Your task to perform on an android device: What's the weather going to be tomorrow? Image 0: 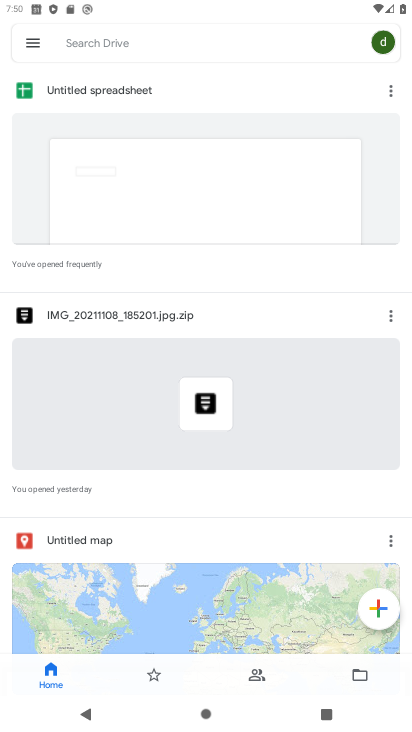
Step 0: press home button
Your task to perform on an android device: What's the weather going to be tomorrow? Image 1: 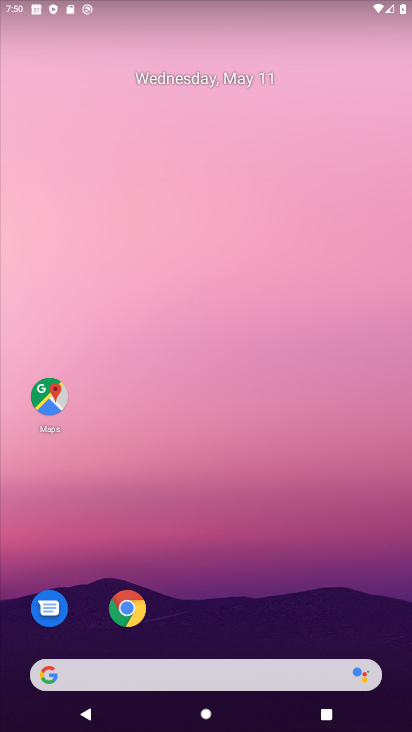
Step 1: drag from (248, 571) to (211, 11)
Your task to perform on an android device: What's the weather going to be tomorrow? Image 2: 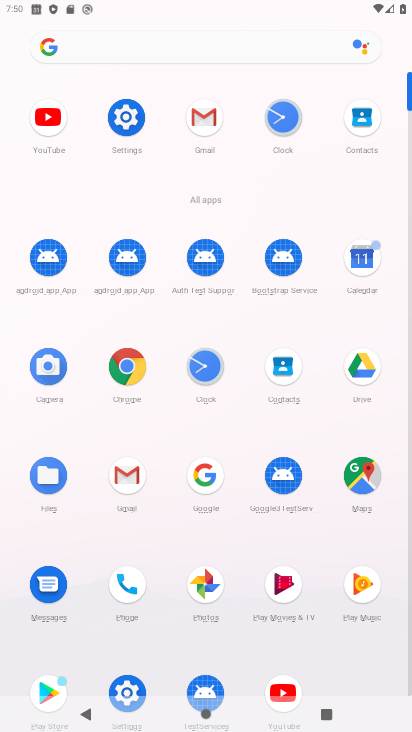
Step 2: click (200, 480)
Your task to perform on an android device: What's the weather going to be tomorrow? Image 3: 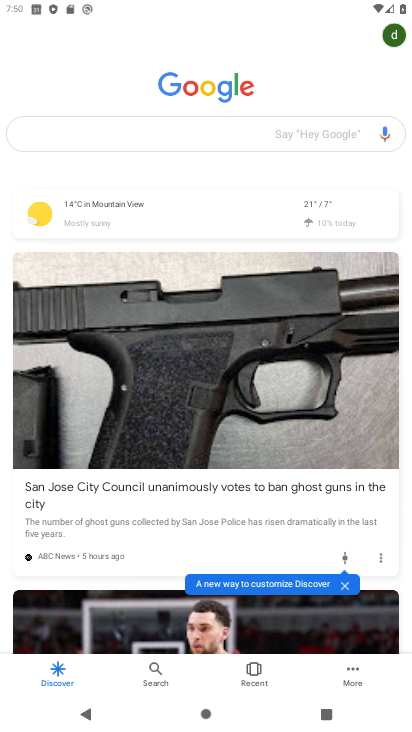
Step 3: click (323, 213)
Your task to perform on an android device: What's the weather going to be tomorrow? Image 4: 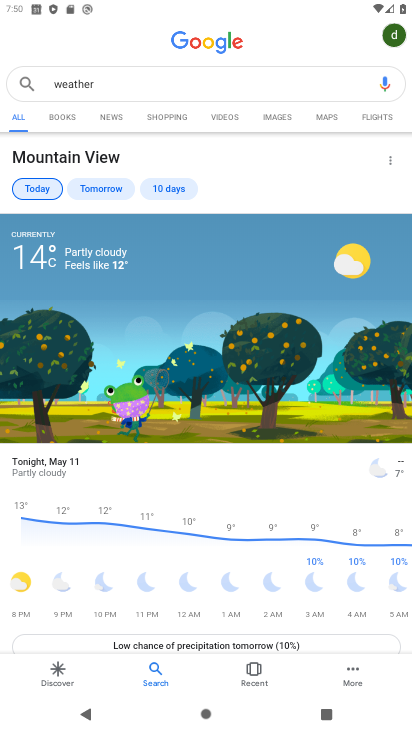
Step 4: click (105, 182)
Your task to perform on an android device: What's the weather going to be tomorrow? Image 5: 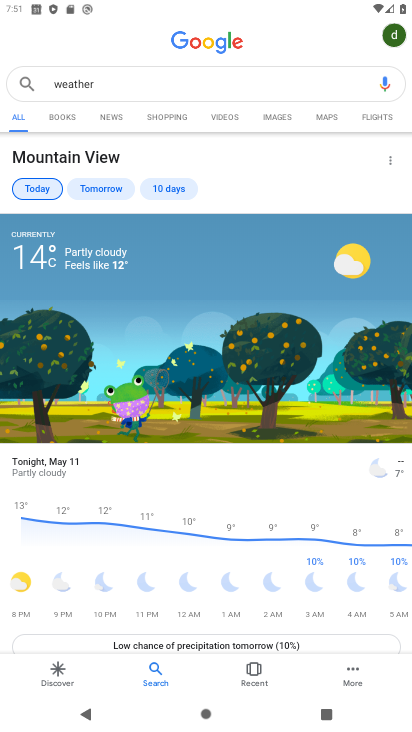
Step 5: click (89, 186)
Your task to perform on an android device: What's the weather going to be tomorrow? Image 6: 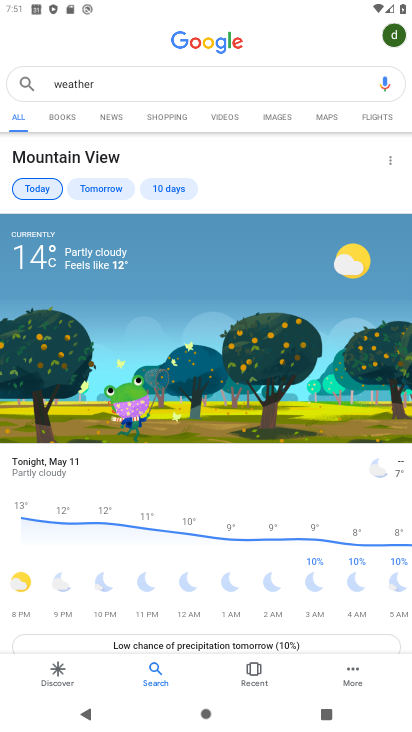
Step 6: drag from (343, 462) to (9, 500)
Your task to perform on an android device: What's the weather going to be tomorrow? Image 7: 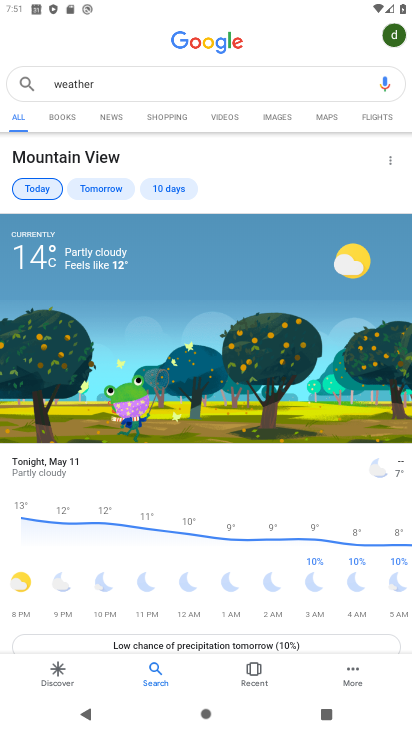
Step 7: drag from (314, 368) to (36, 353)
Your task to perform on an android device: What's the weather going to be tomorrow? Image 8: 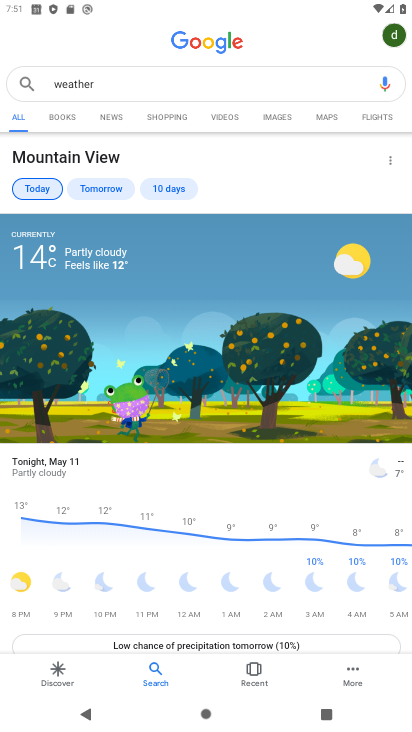
Step 8: click (106, 74)
Your task to perform on an android device: What's the weather going to be tomorrow? Image 9: 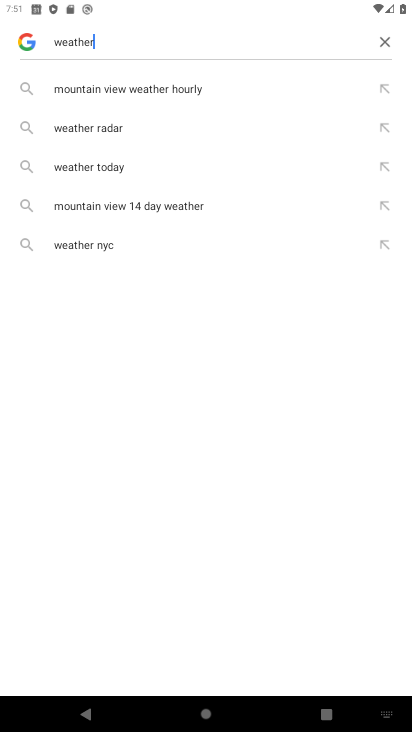
Step 9: click (382, 44)
Your task to perform on an android device: What's the weather going to be tomorrow? Image 10: 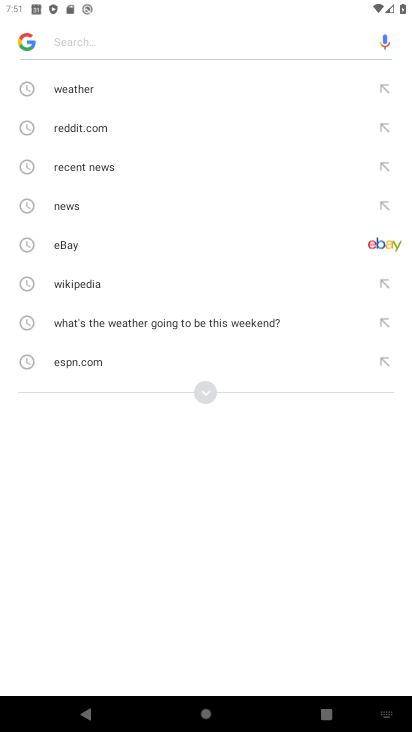
Step 10: type "What's the weather going to be tomorrow?"
Your task to perform on an android device: What's the weather going to be tomorrow? Image 11: 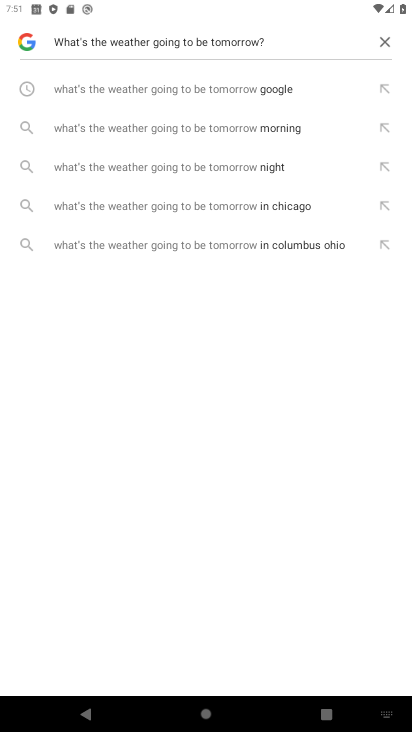
Step 11: click (236, 89)
Your task to perform on an android device: What's the weather going to be tomorrow? Image 12: 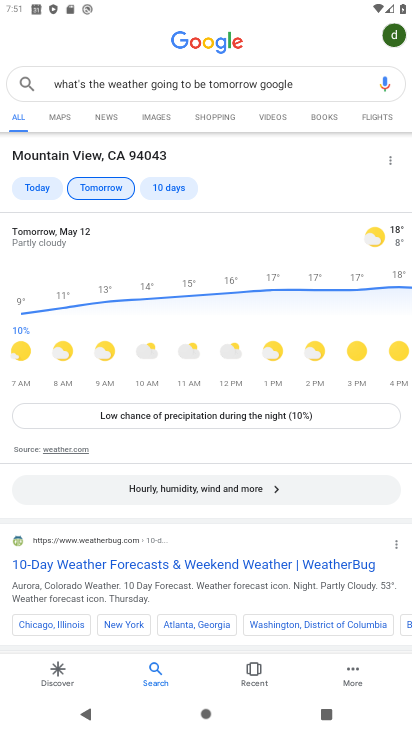
Step 12: task complete